Your task to perform on an android device: open app "Adobe Acrobat Reader" Image 0: 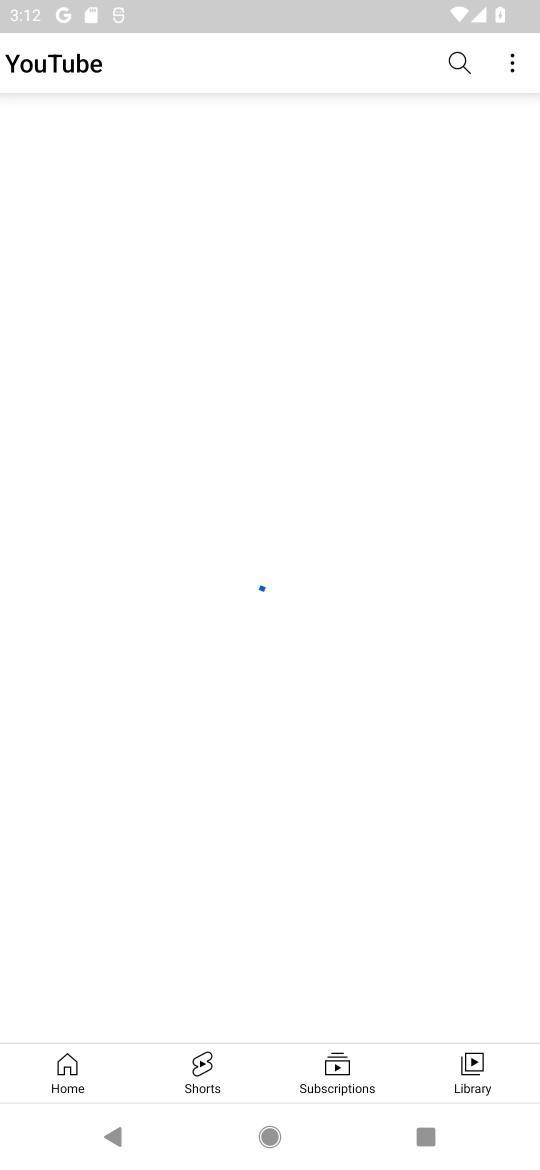
Step 0: press home button
Your task to perform on an android device: open app "Adobe Acrobat Reader" Image 1: 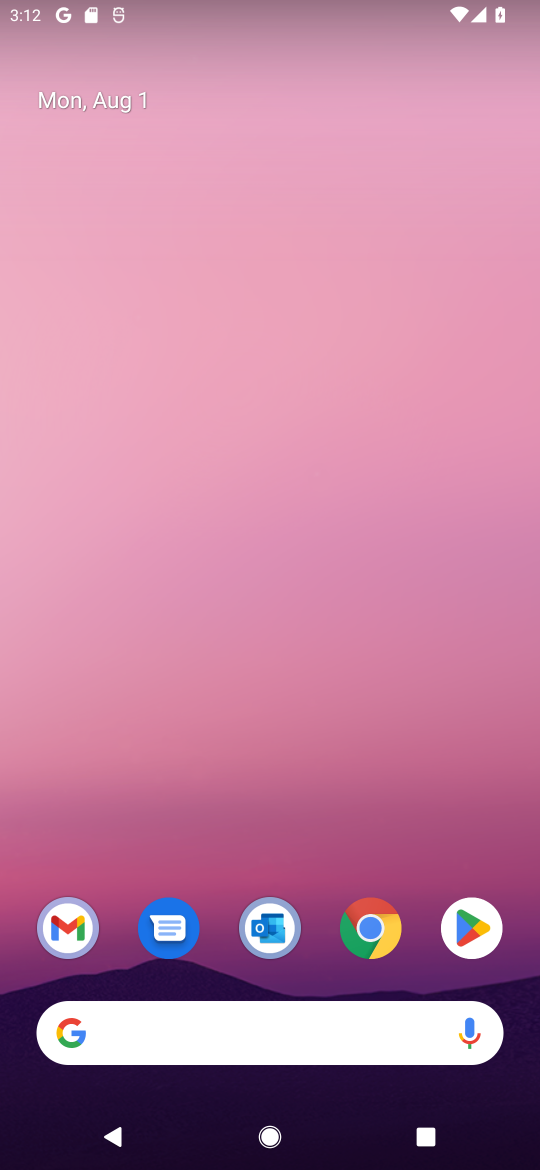
Step 1: click (486, 921)
Your task to perform on an android device: open app "Adobe Acrobat Reader" Image 2: 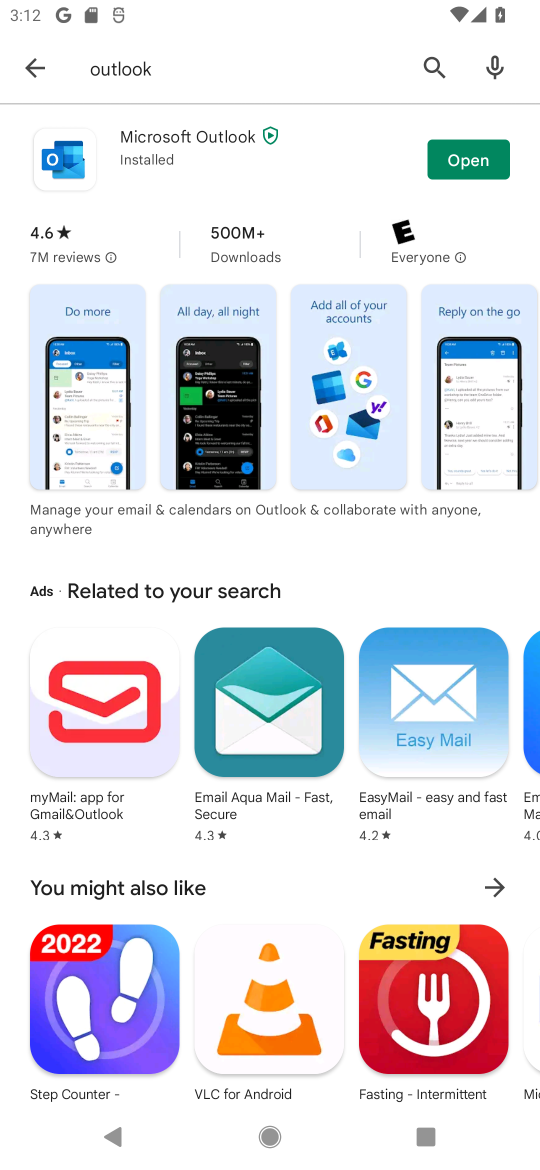
Step 2: click (436, 63)
Your task to perform on an android device: open app "Adobe Acrobat Reader" Image 3: 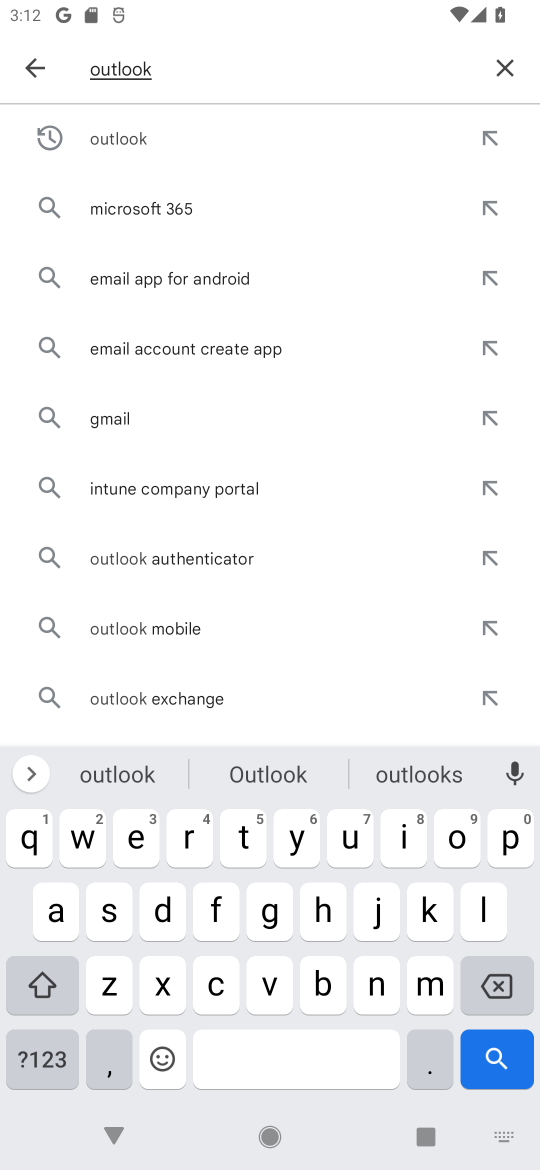
Step 3: click (509, 63)
Your task to perform on an android device: open app "Adobe Acrobat Reader" Image 4: 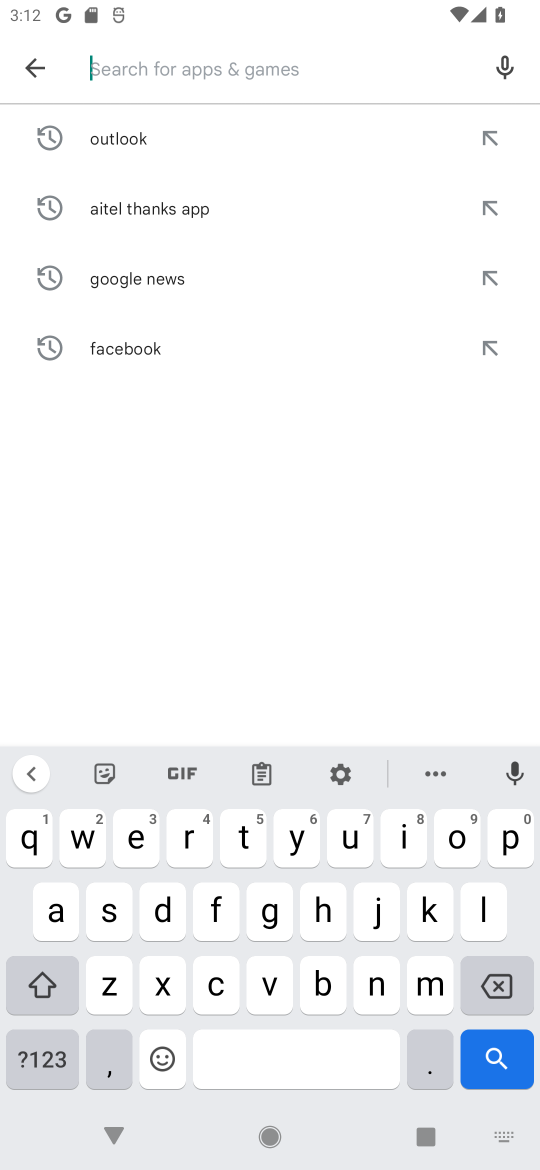
Step 4: click (40, 928)
Your task to perform on an android device: open app "Adobe Acrobat Reader" Image 5: 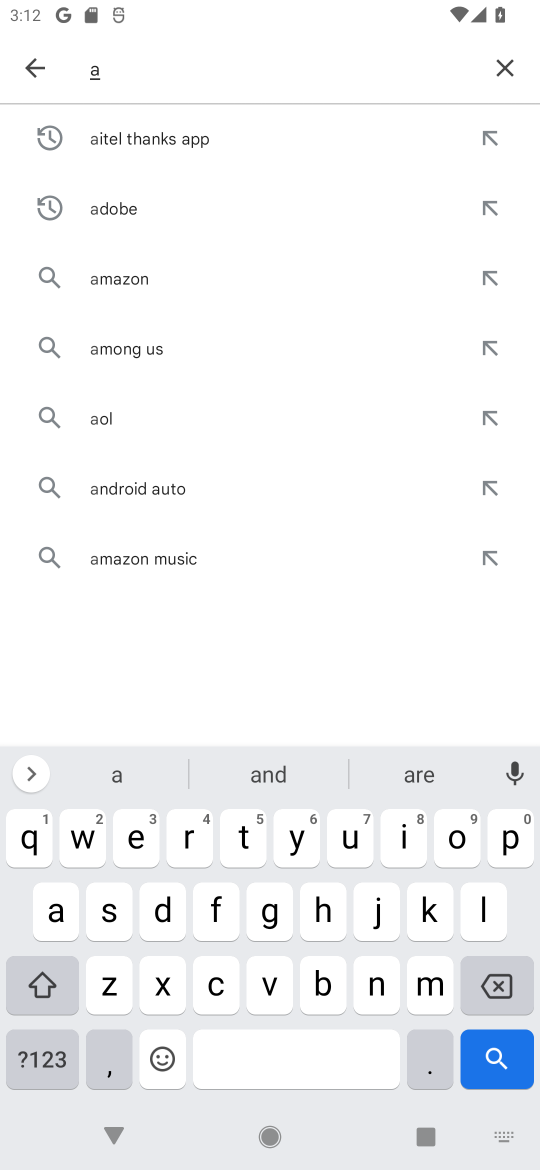
Step 5: click (163, 911)
Your task to perform on an android device: open app "Adobe Acrobat Reader" Image 6: 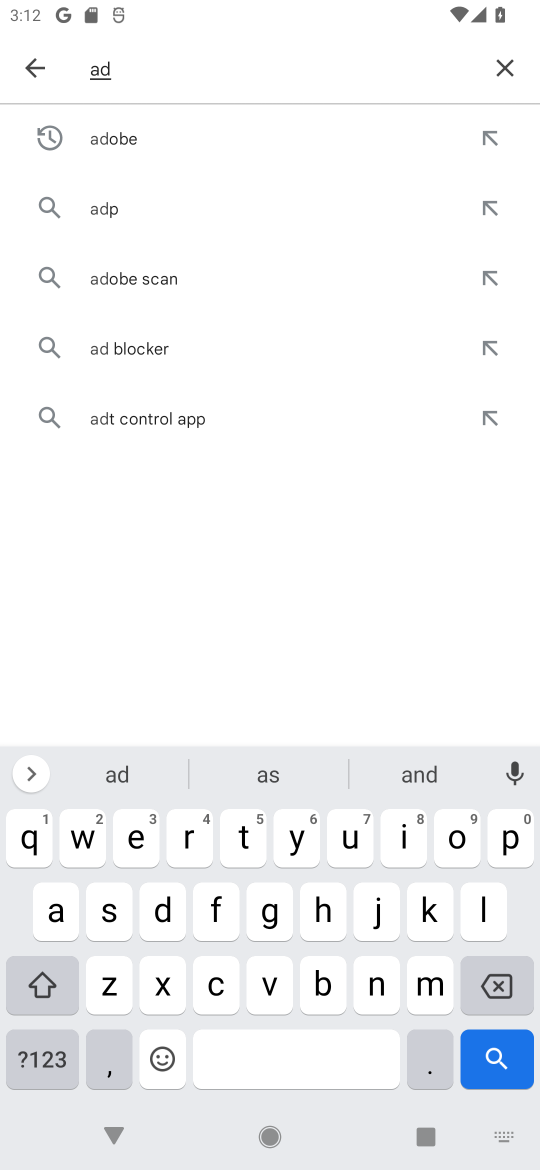
Step 6: click (134, 138)
Your task to perform on an android device: open app "Adobe Acrobat Reader" Image 7: 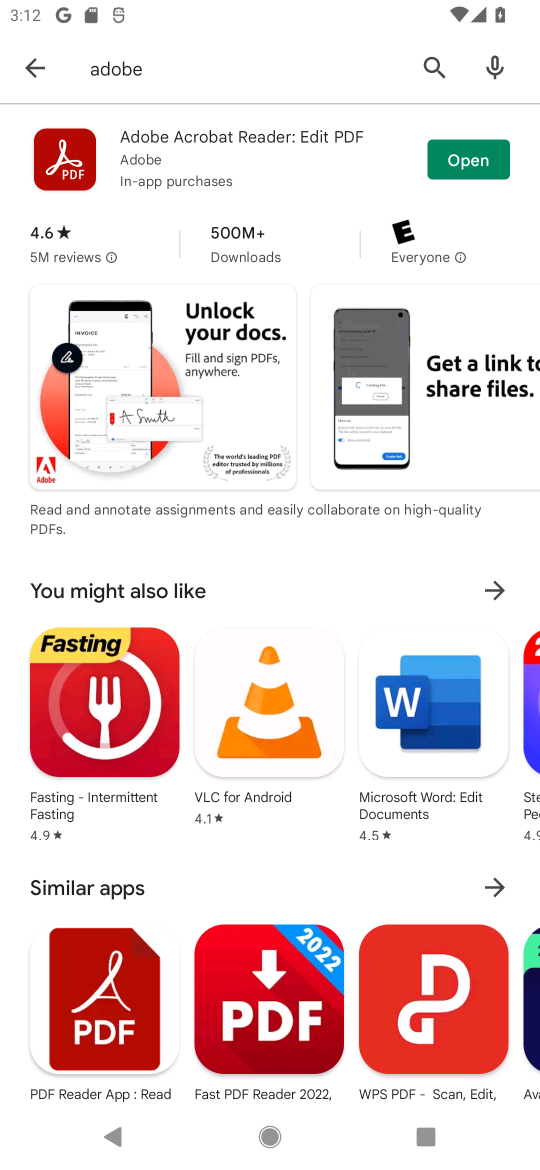
Step 7: click (470, 169)
Your task to perform on an android device: open app "Adobe Acrobat Reader" Image 8: 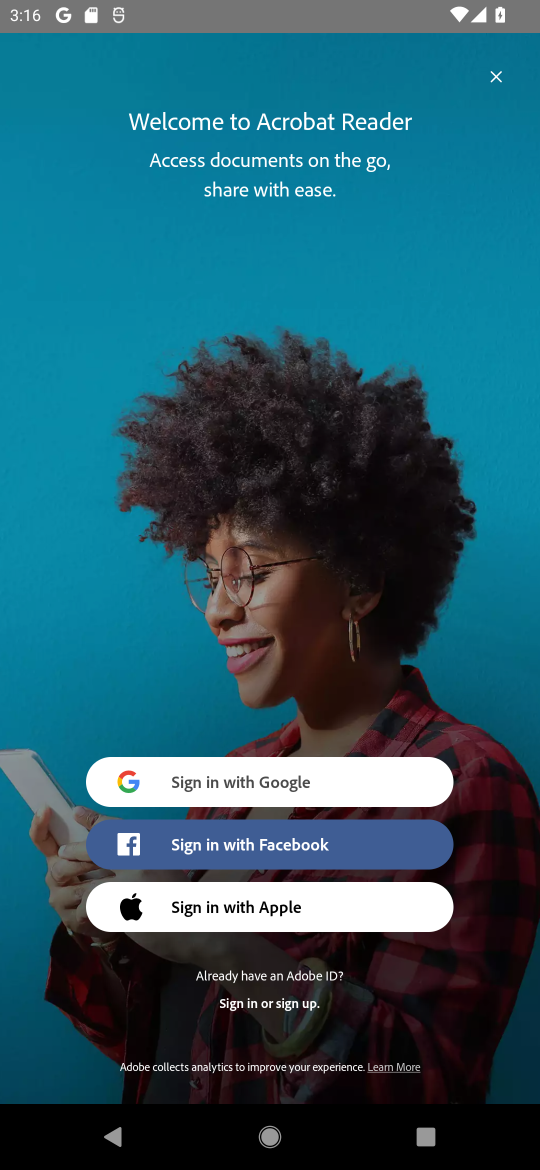
Step 8: task complete